Your task to perform on an android device: change notification settings in the gmail app Image 0: 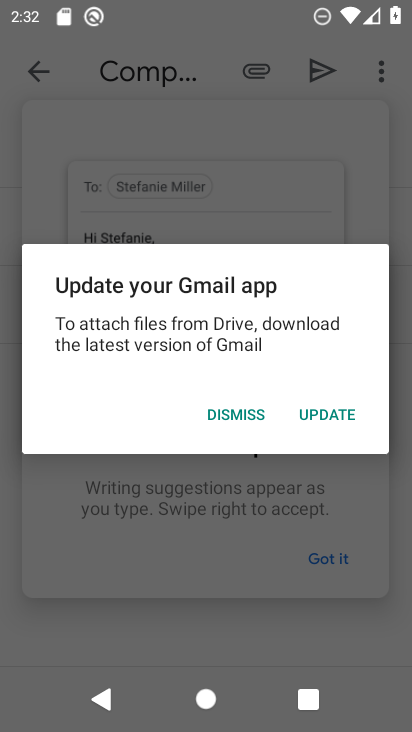
Step 0: press home button
Your task to perform on an android device: change notification settings in the gmail app Image 1: 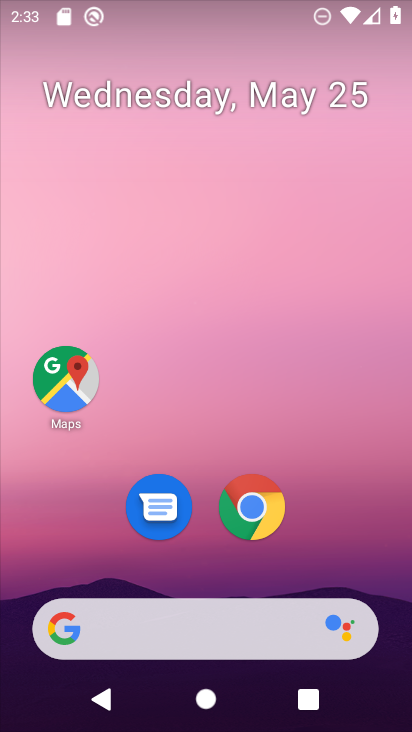
Step 1: drag from (238, 558) to (264, 358)
Your task to perform on an android device: change notification settings in the gmail app Image 2: 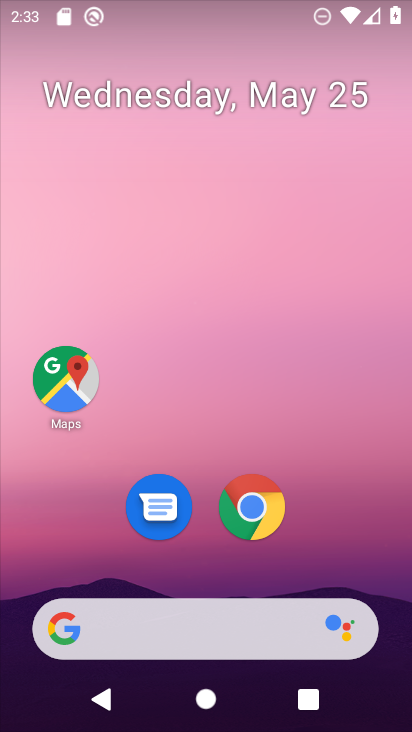
Step 2: drag from (237, 617) to (299, 166)
Your task to perform on an android device: change notification settings in the gmail app Image 3: 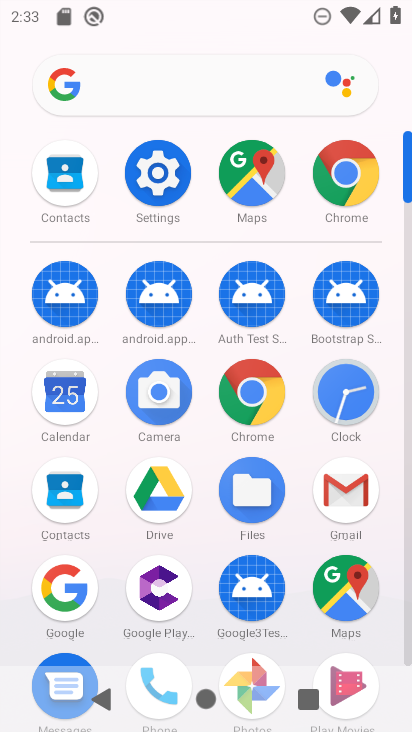
Step 3: click (354, 498)
Your task to perform on an android device: change notification settings in the gmail app Image 4: 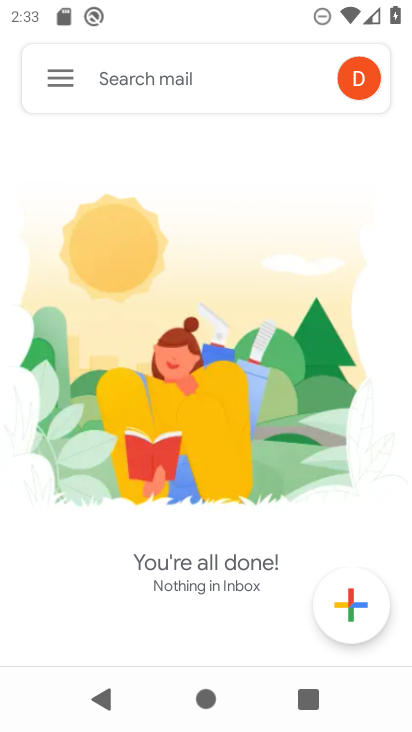
Step 4: click (67, 79)
Your task to perform on an android device: change notification settings in the gmail app Image 5: 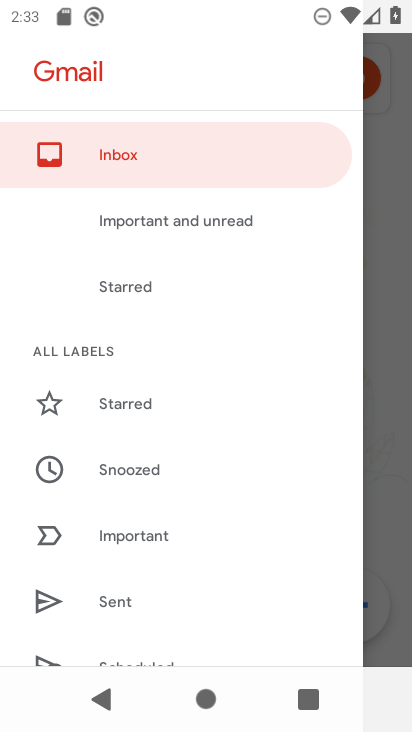
Step 5: drag from (108, 434) to (164, 79)
Your task to perform on an android device: change notification settings in the gmail app Image 6: 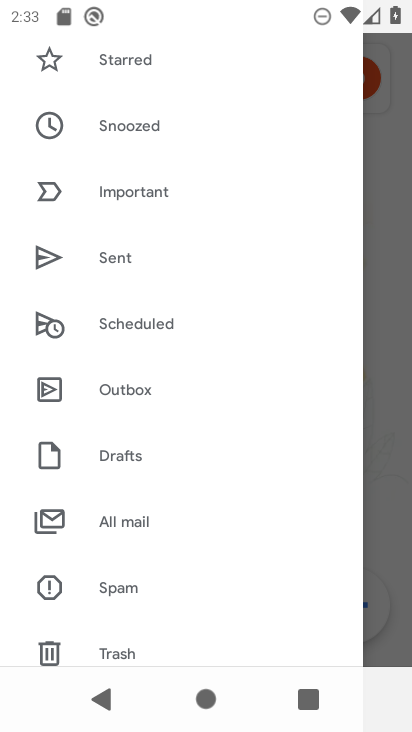
Step 6: drag from (157, 521) to (184, 250)
Your task to perform on an android device: change notification settings in the gmail app Image 7: 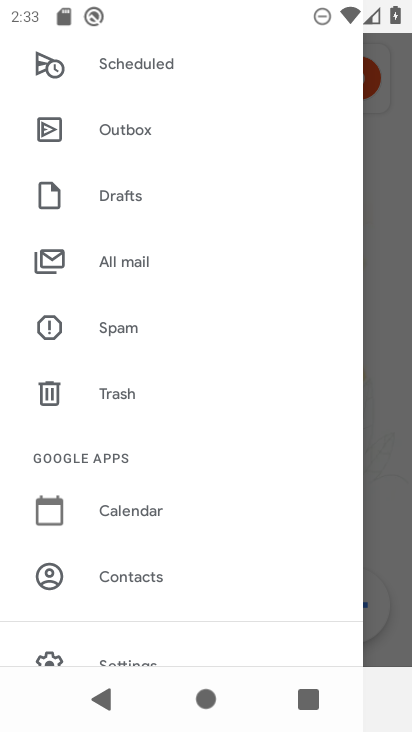
Step 7: drag from (141, 548) to (172, 315)
Your task to perform on an android device: change notification settings in the gmail app Image 8: 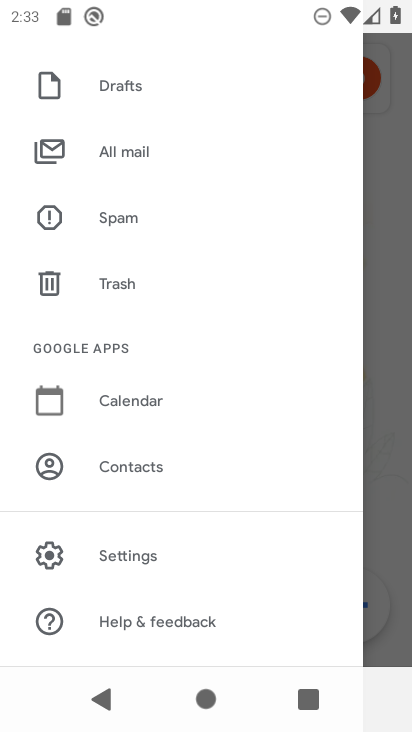
Step 8: click (132, 546)
Your task to perform on an android device: change notification settings in the gmail app Image 9: 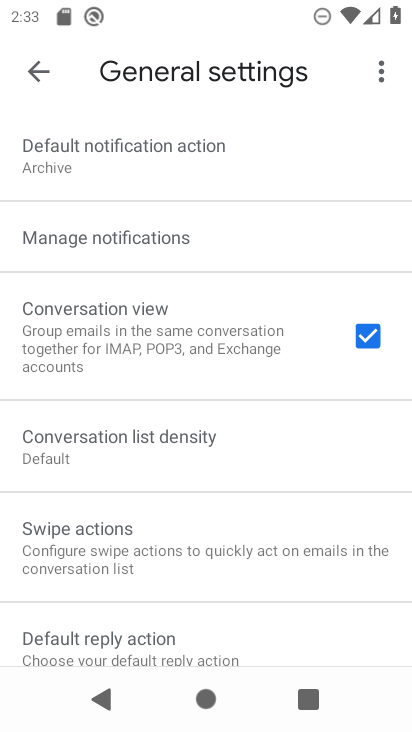
Step 9: click (183, 244)
Your task to perform on an android device: change notification settings in the gmail app Image 10: 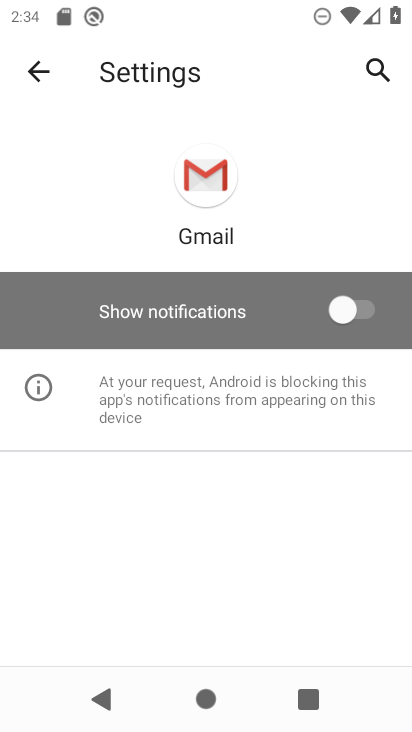
Step 10: click (280, 305)
Your task to perform on an android device: change notification settings in the gmail app Image 11: 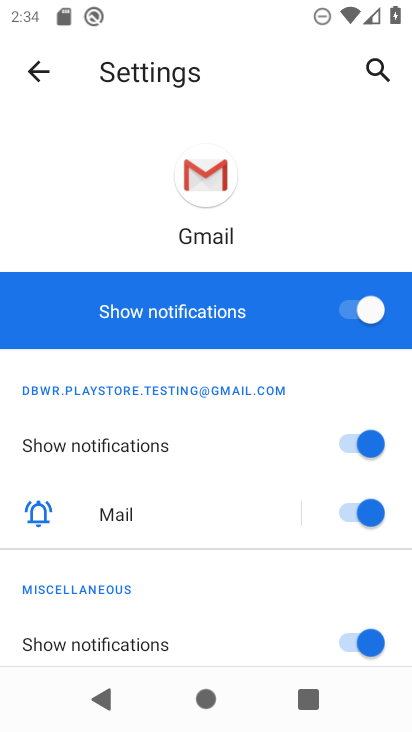
Step 11: task complete